Your task to perform on an android device: Search for "acer nitro" on newegg.com, select the first entry, and add it to the cart. Image 0: 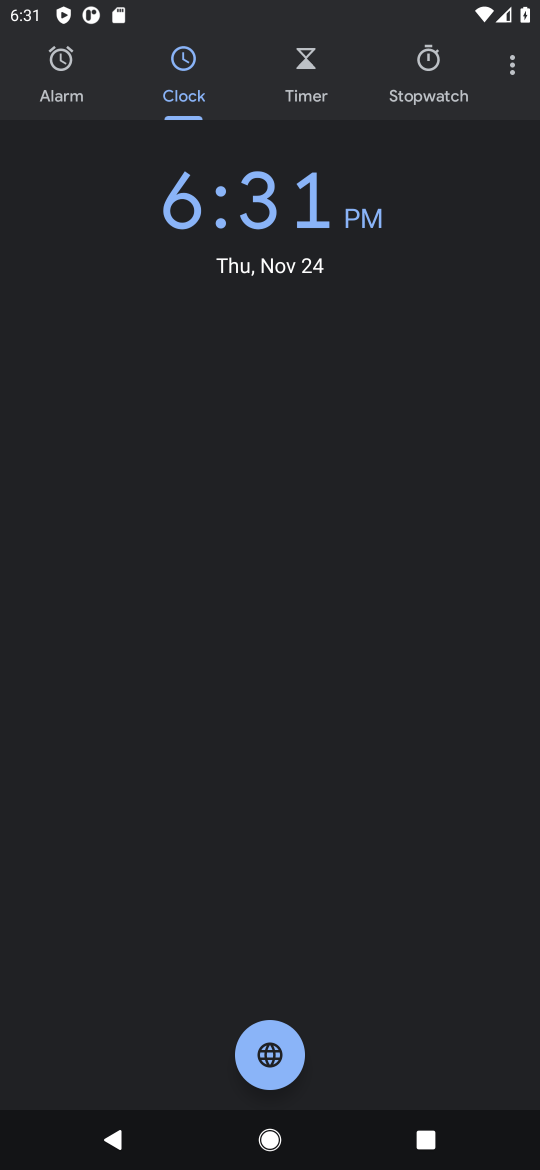
Step 0: press home button
Your task to perform on an android device: Search for "acer nitro" on newegg.com, select the first entry, and add it to the cart. Image 1: 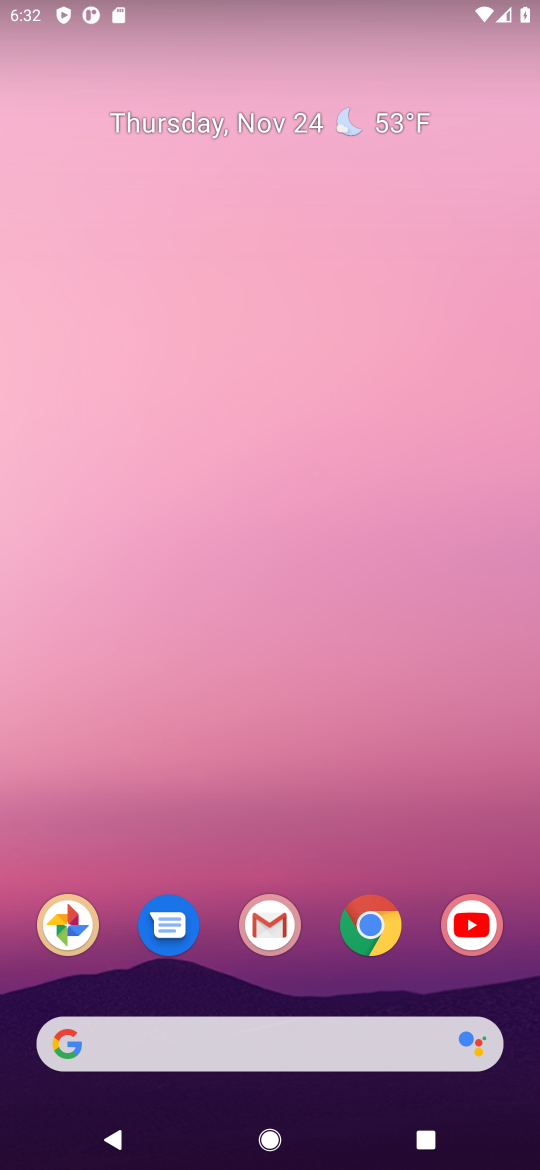
Step 1: click (181, 1050)
Your task to perform on an android device: Search for "acer nitro" on newegg.com, select the first entry, and add it to the cart. Image 2: 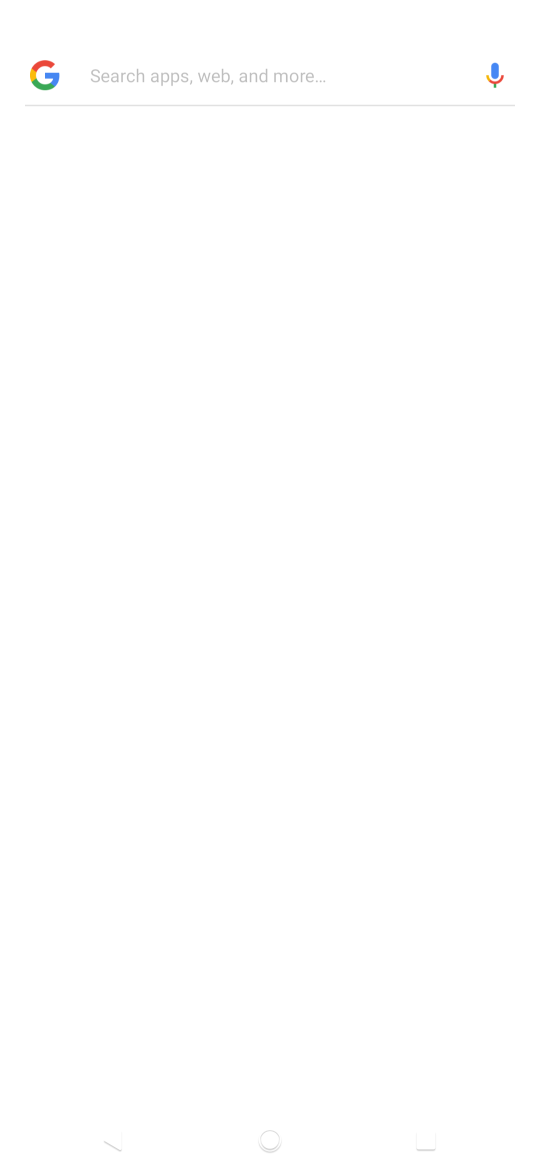
Step 2: drag from (191, 1030) to (208, 853)
Your task to perform on an android device: Search for "acer nitro" on newegg.com, select the first entry, and add it to the cart. Image 3: 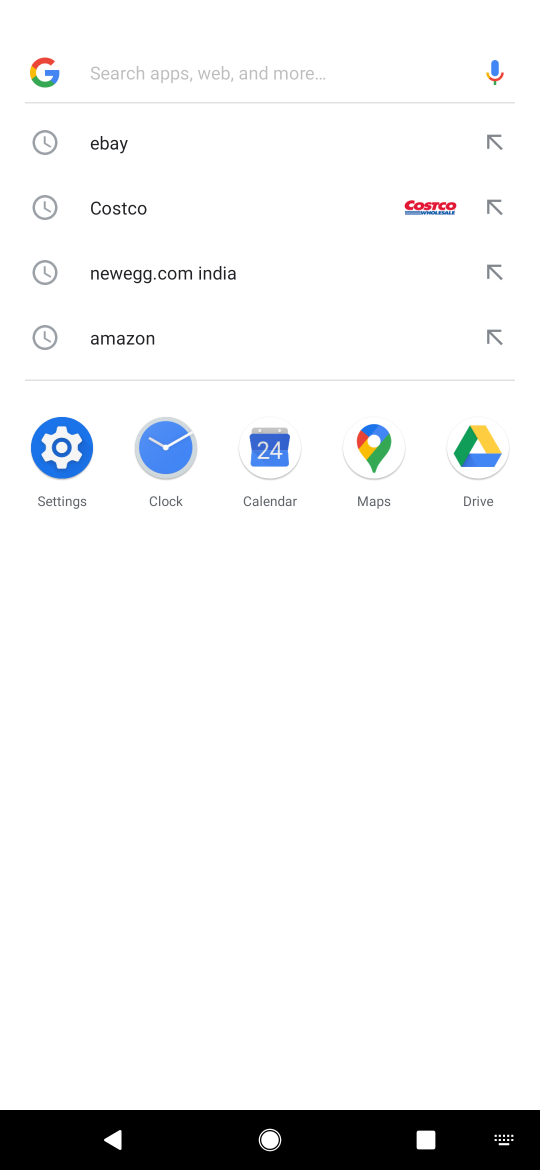
Step 3: click (209, 271)
Your task to perform on an android device: Search for "acer nitro" on newegg.com, select the first entry, and add it to the cart. Image 4: 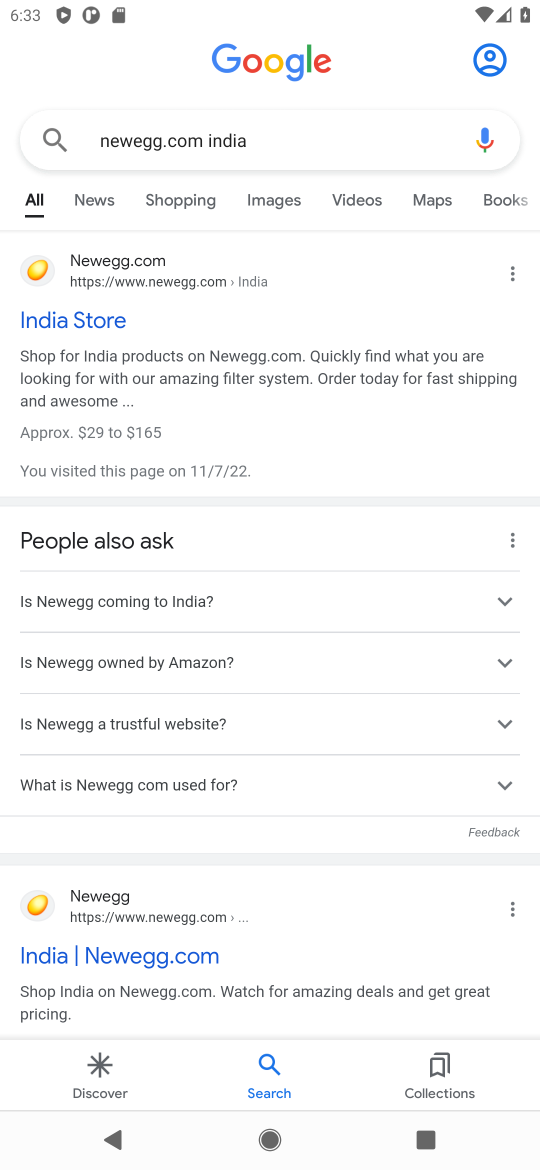
Step 4: click (111, 954)
Your task to perform on an android device: Search for "acer nitro" on newegg.com, select the first entry, and add it to the cart. Image 5: 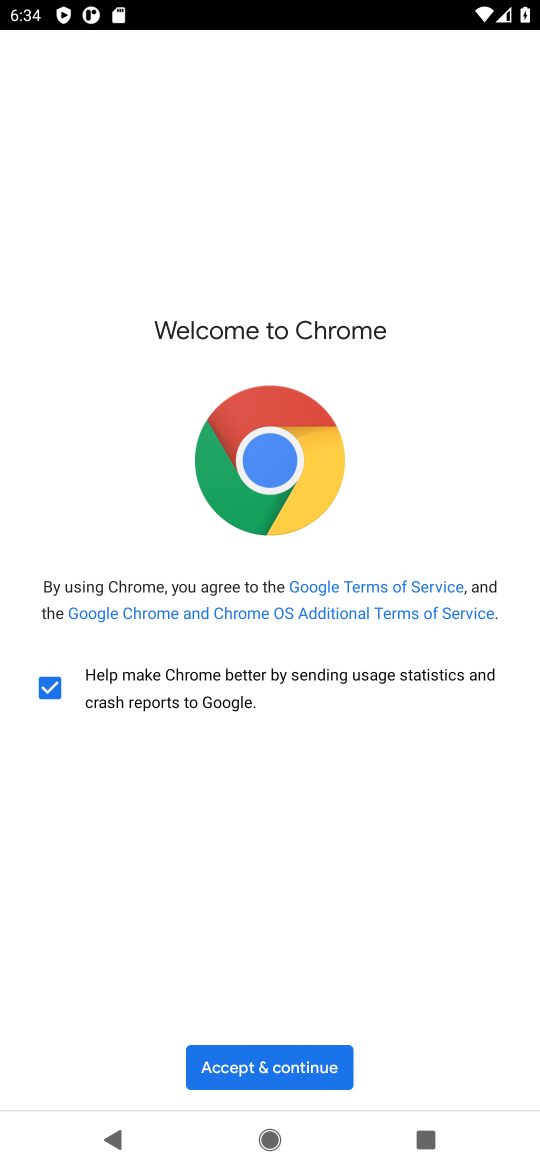
Step 5: click (202, 1063)
Your task to perform on an android device: Search for "acer nitro" on newegg.com, select the first entry, and add it to the cart. Image 6: 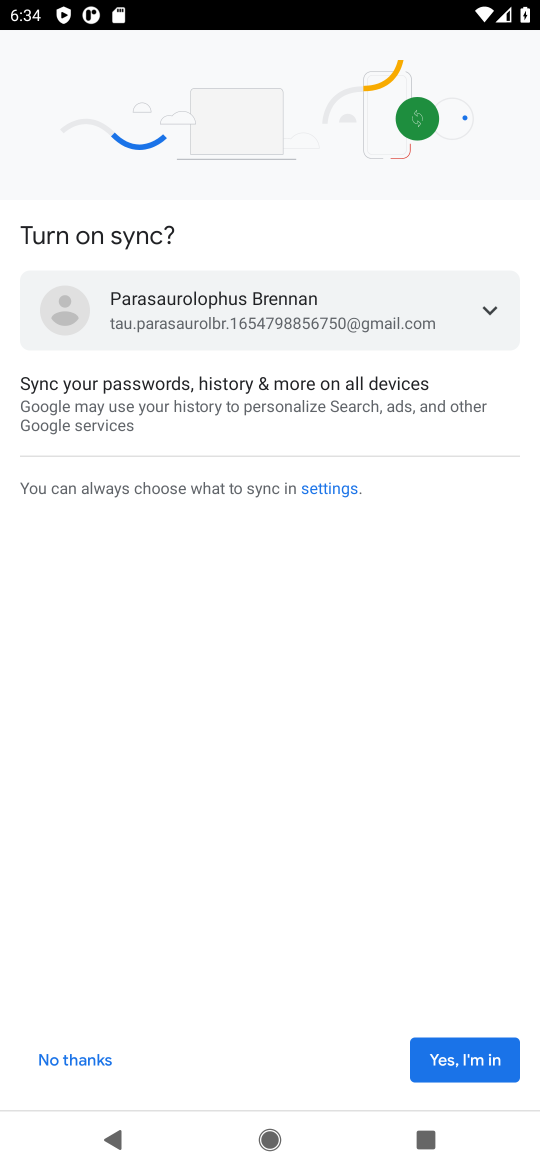
Step 6: click (461, 1051)
Your task to perform on an android device: Search for "acer nitro" on newegg.com, select the first entry, and add it to the cart. Image 7: 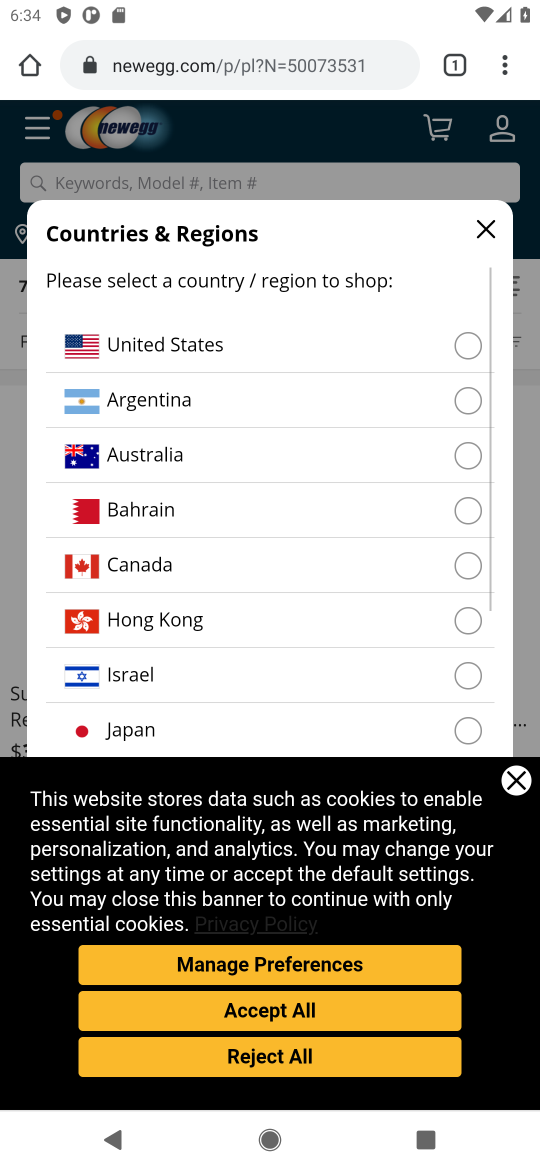
Step 7: click (213, 352)
Your task to perform on an android device: Search for "acer nitro" on newegg.com, select the first entry, and add it to the cart. Image 8: 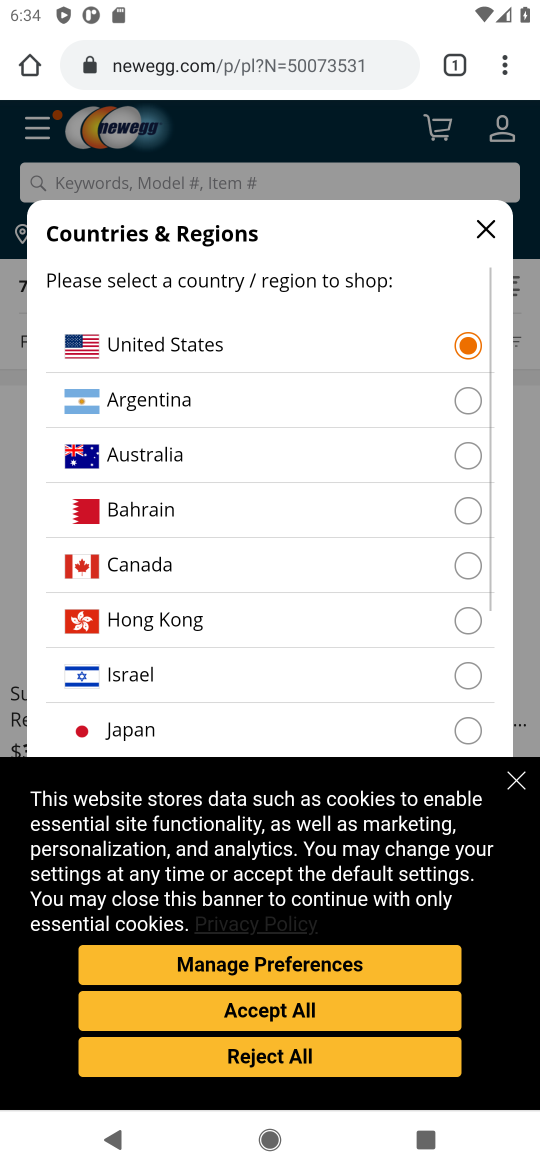
Step 8: click (481, 229)
Your task to perform on an android device: Search for "acer nitro" on newegg.com, select the first entry, and add it to the cart. Image 9: 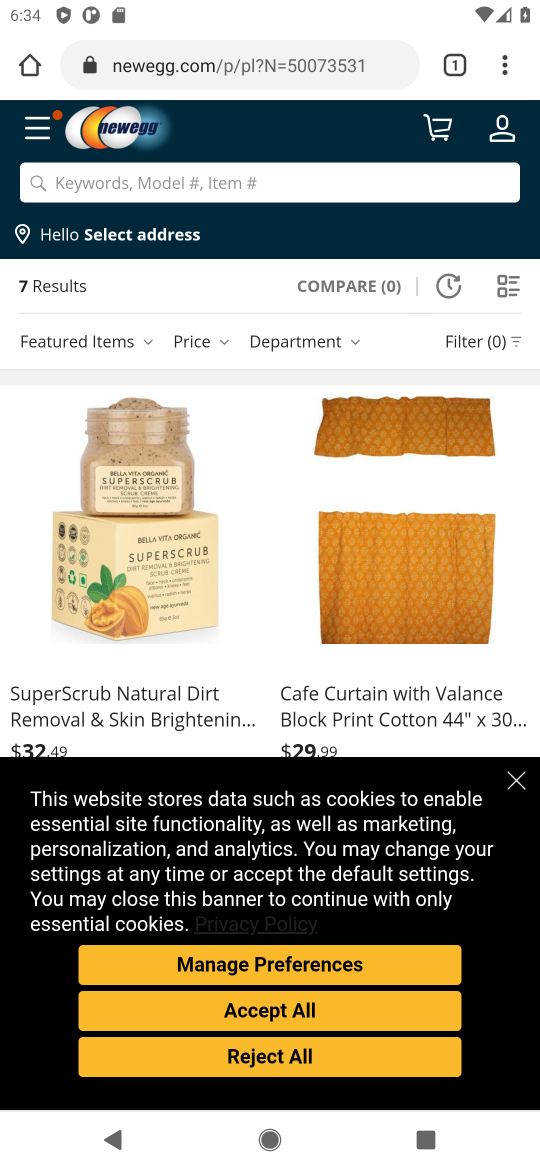
Step 9: click (296, 186)
Your task to perform on an android device: Search for "acer nitro" on newegg.com, select the first entry, and add it to the cart. Image 10: 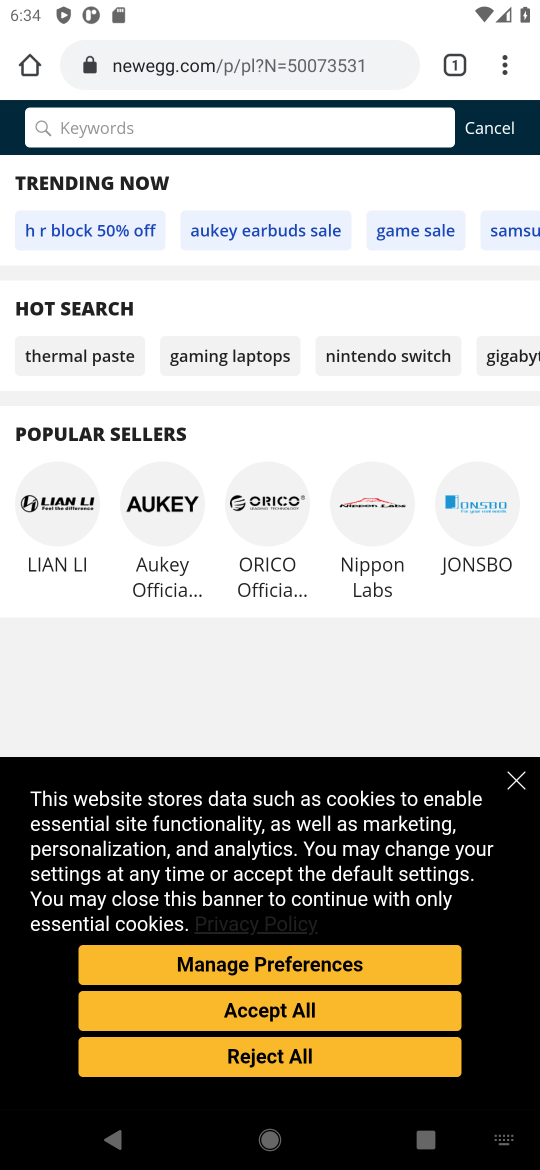
Step 10: type "acer nitro"
Your task to perform on an android device: Search for "acer nitro" on newegg.com, select the first entry, and add it to the cart. Image 11: 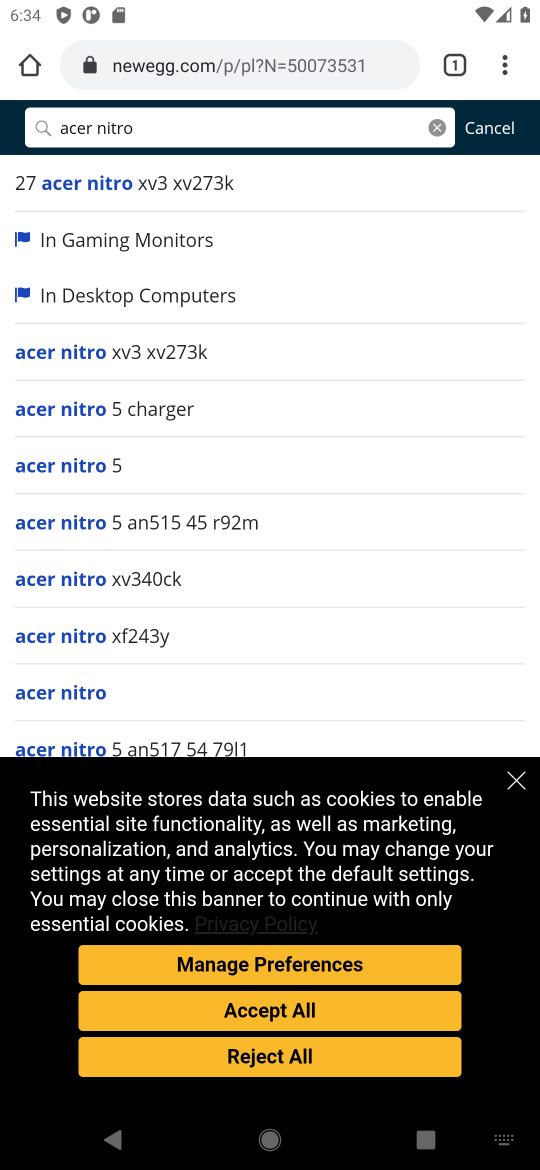
Step 11: click (175, 180)
Your task to perform on an android device: Search for "acer nitro" on newegg.com, select the first entry, and add it to the cart. Image 12: 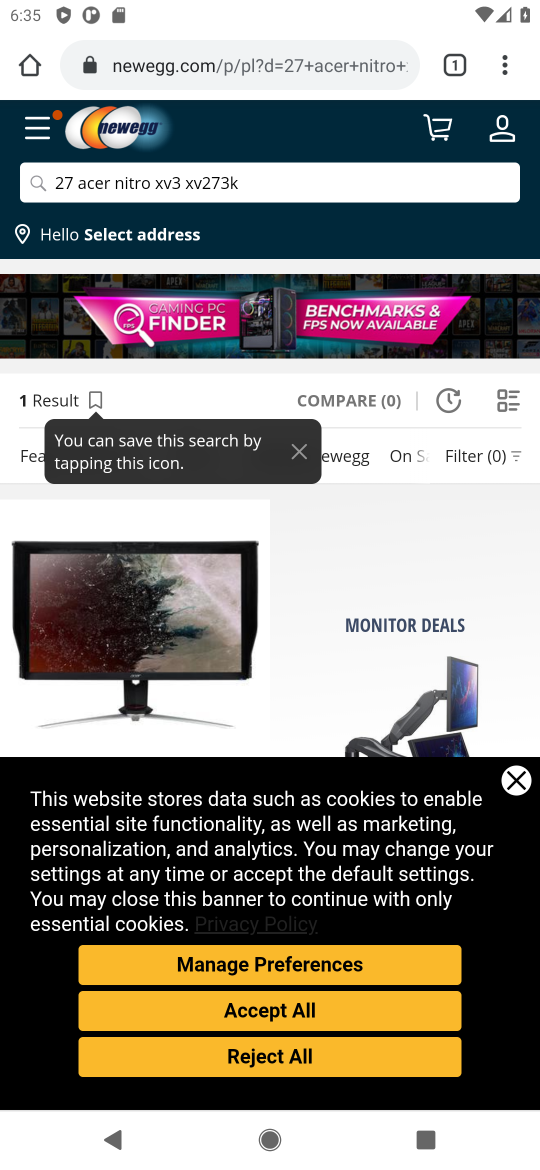
Step 12: click (506, 785)
Your task to perform on an android device: Search for "acer nitro" on newegg.com, select the first entry, and add it to the cart. Image 13: 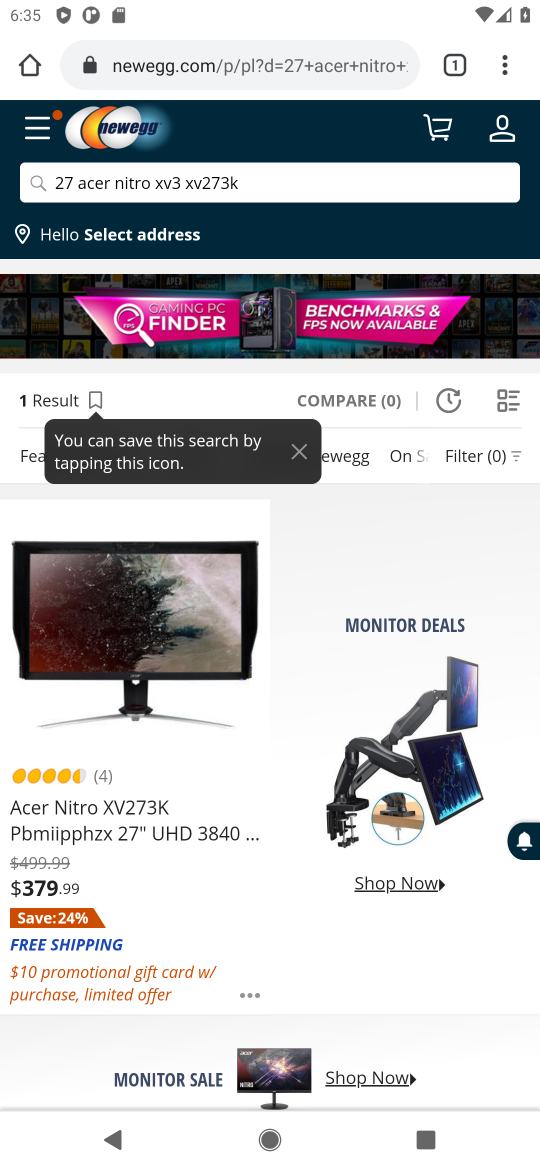
Step 13: click (124, 789)
Your task to perform on an android device: Search for "acer nitro" on newegg.com, select the first entry, and add it to the cart. Image 14: 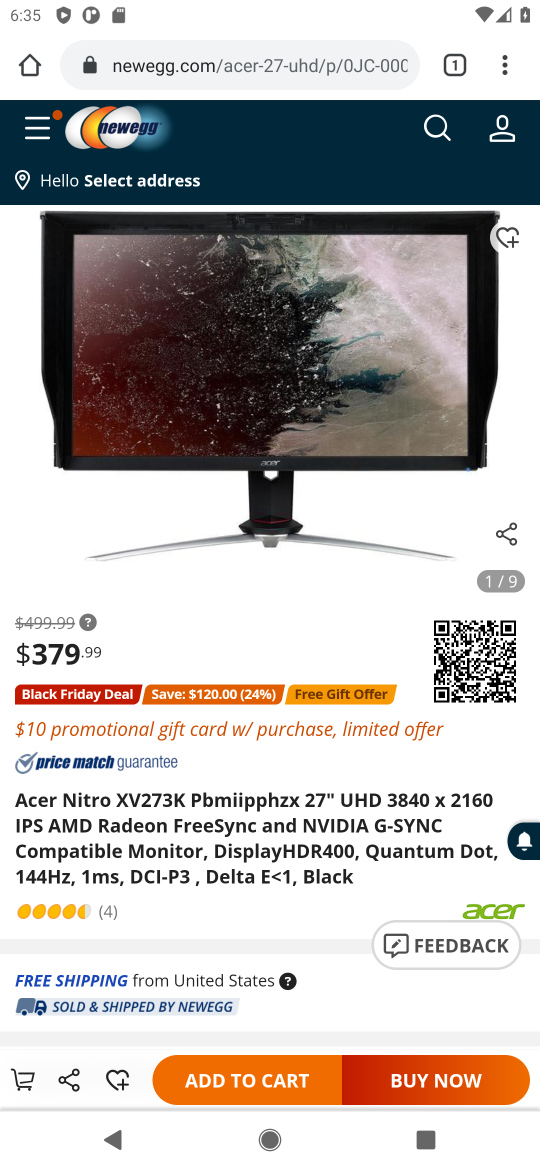
Step 14: click (251, 1085)
Your task to perform on an android device: Search for "acer nitro" on newegg.com, select the first entry, and add it to the cart. Image 15: 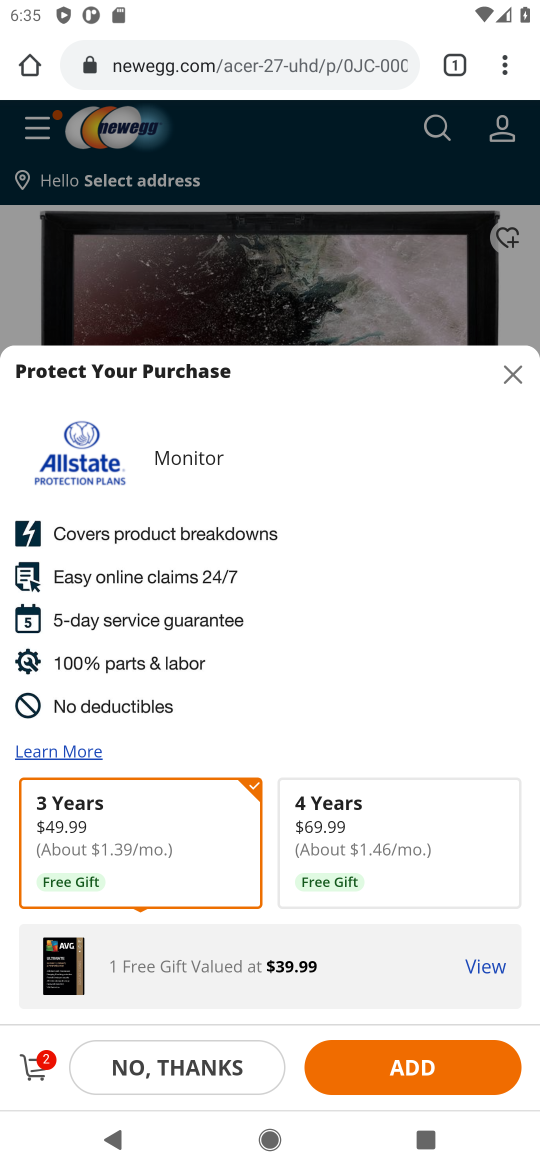
Step 15: click (386, 1058)
Your task to perform on an android device: Search for "acer nitro" on newegg.com, select the first entry, and add it to the cart. Image 16: 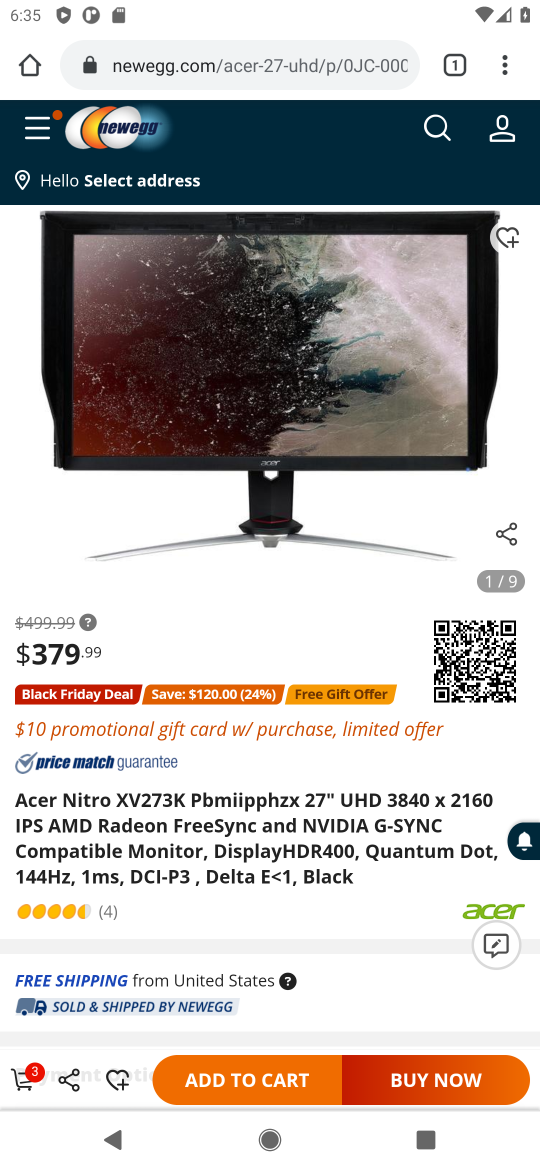
Step 16: task complete